Your task to perform on an android device: toggle wifi Image 0: 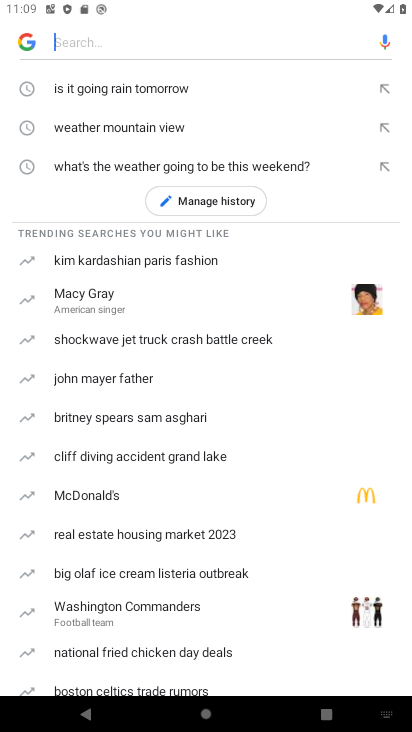
Step 0: press home button
Your task to perform on an android device: toggle wifi Image 1: 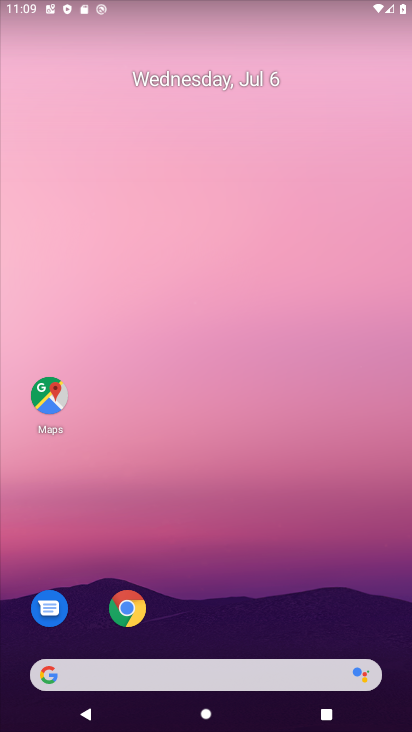
Step 1: drag from (153, 659) to (188, 143)
Your task to perform on an android device: toggle wifi Image 2: 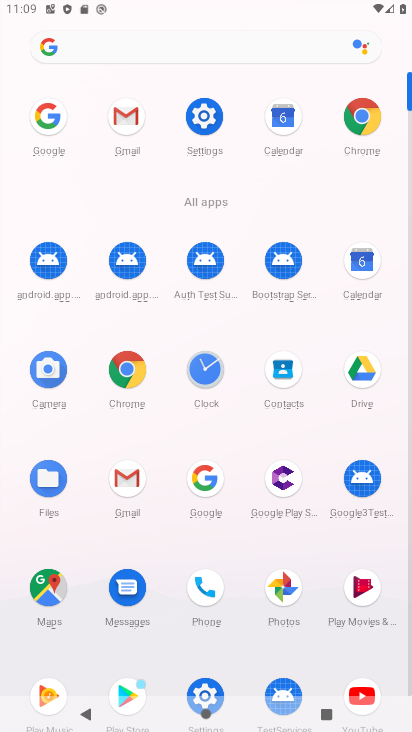
Step 2: click (203, 120)
Your task to perform on an android device: toggle wifi Image 3: 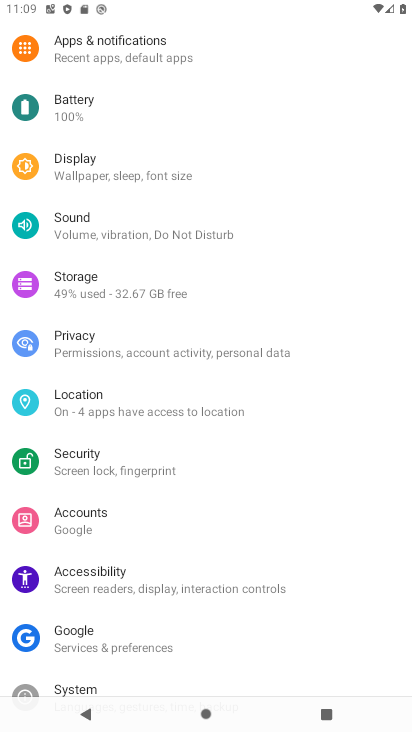
Step 3: drag from (178, 104) to (214, 527)
Your task to perform on an android device: toggle wifi Image 4: 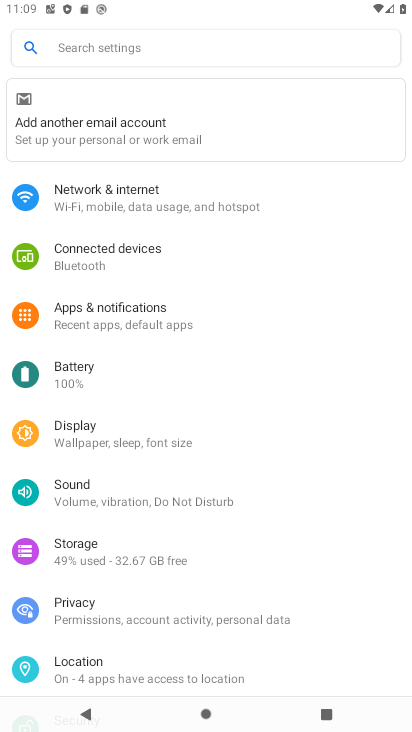
Step 4: click (132, 206)
Your task to perform on an android device: toggle wifi Image 5: 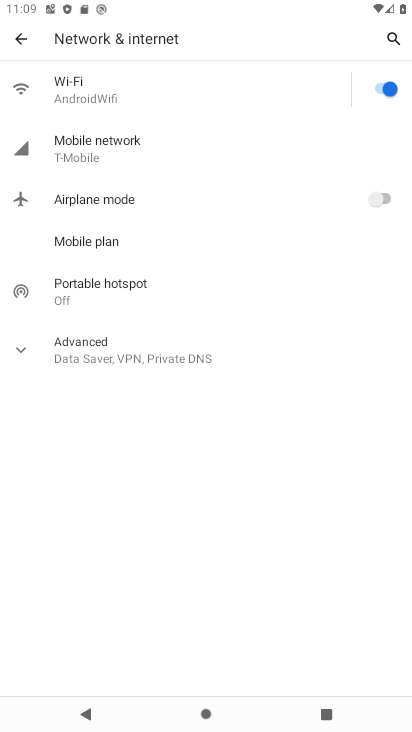
Step 5: click (379, 84)
Your task to perform on an android device: toggle wifi Image 6: 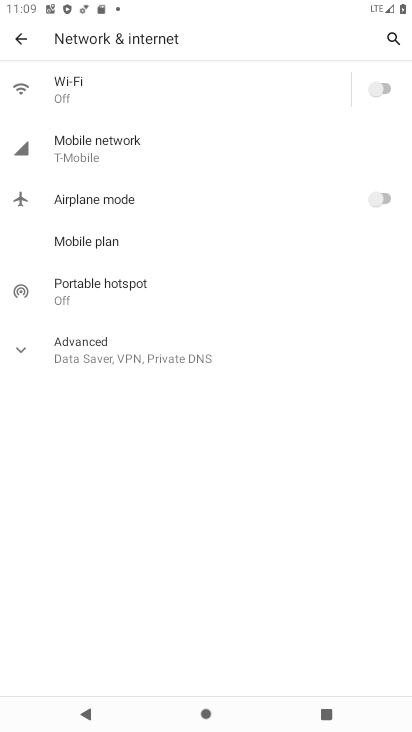
Step 6: task complete